Your task to perform on an android device: all mails in gmail Image 0: 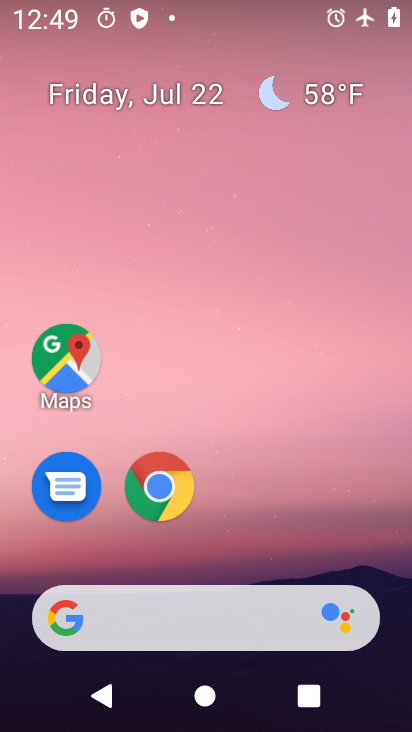
Step 0: press home button
Your task to perform on an android device: all mails in gmail Image 1: 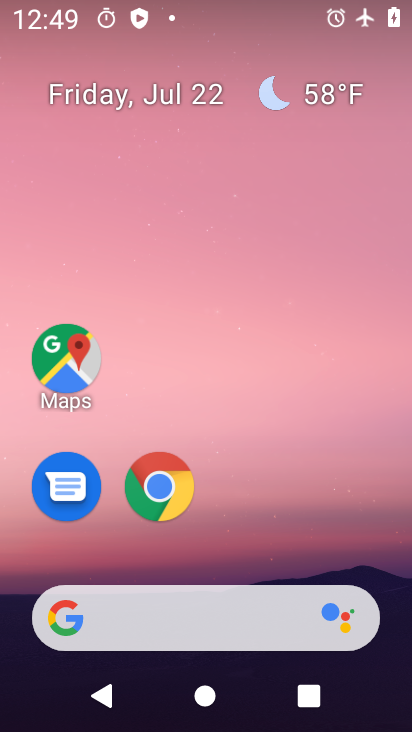
Step 1: drag from (350, 540) to (365, 152)
Your task to perform on an android device: all mails in gmail Image 2: 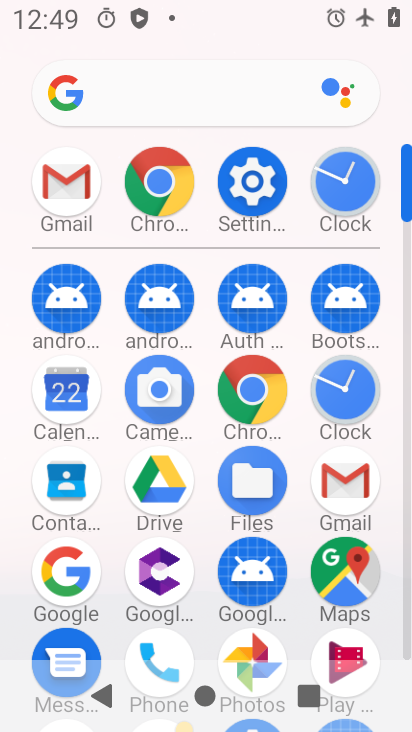
Step 2: click (355, 474)
Your task to perform on an android device: all mails in gmail Image 3: 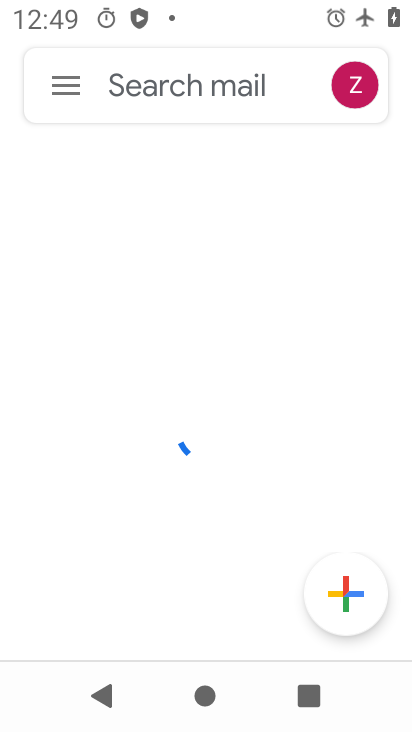
Step 3: click (65, 89)
Your task to perform on an android device: all mails in gmail Image 4: 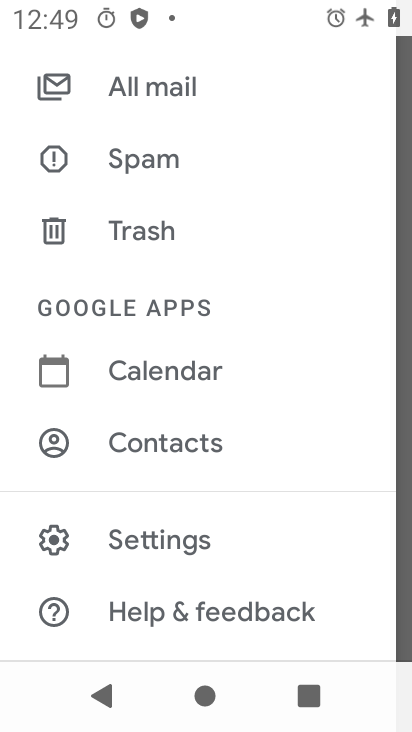
Step 4: drag from (266, 194) to (274, 268)
Your task to perform on an android device: all mails in gmail Image 5: 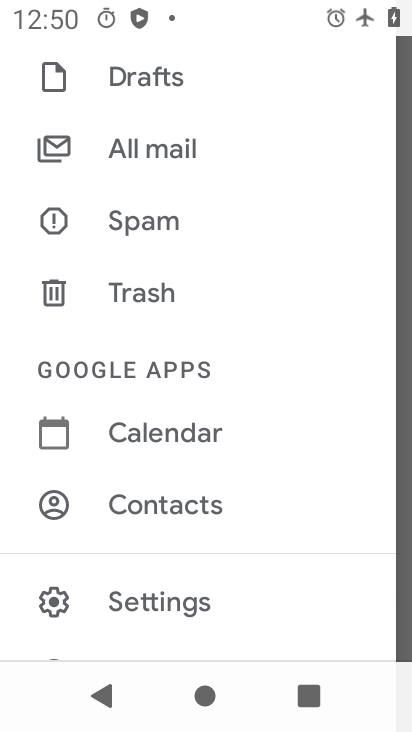
Step 5: drag from (292, 178) to (293, 277)
Your task to perform on an android device: all mails in gmail Image 6: 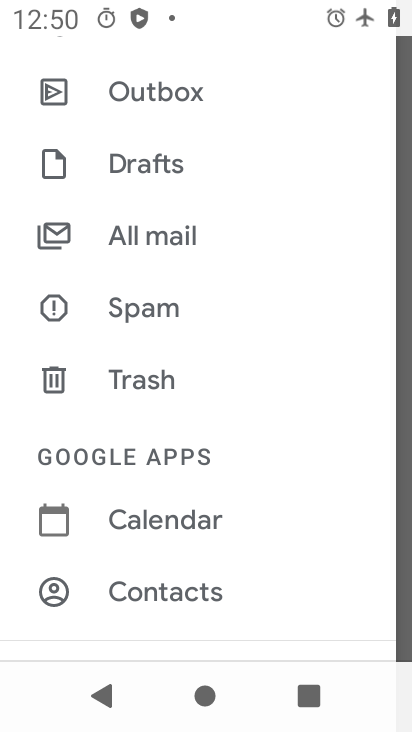
Step 6: drag from (281, 136) to (286, 258)
Your task to perform on an android device: all mails in gmail Image 7: 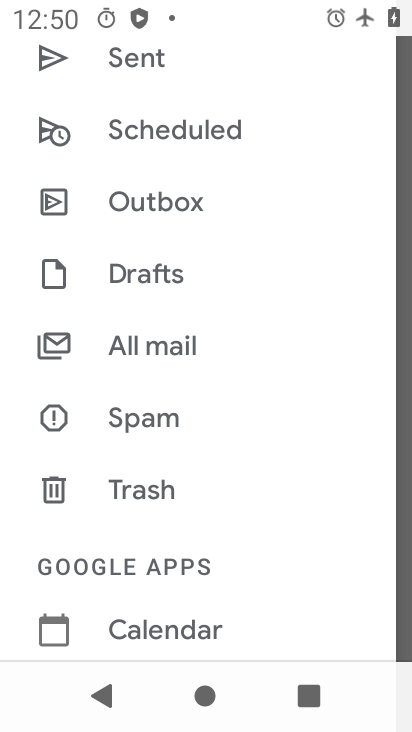
Step 7: drag from (286, 160) to (305, 366)
Your task to perform on an android device: all mails in gmail Image 8: 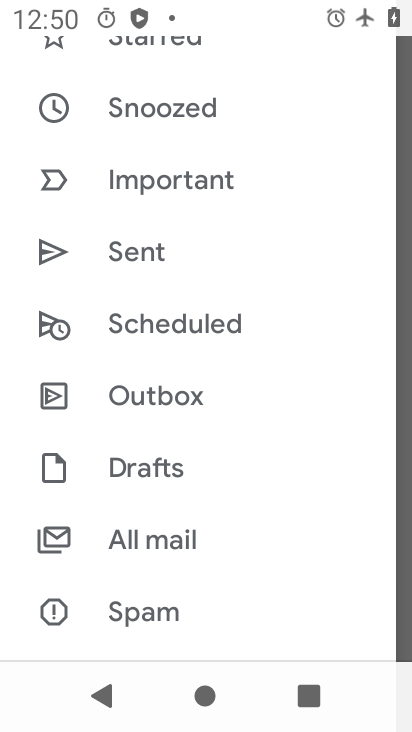
Step 8: click (227, 544)
Your task to perform on an android device: all mails in gmail Image 9: 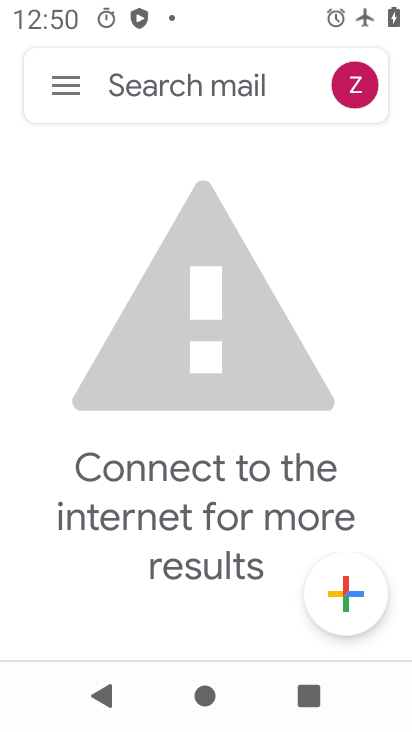
Step 9: task complete